Your task to perform on an android device: Go to Wikipedia Image 0: 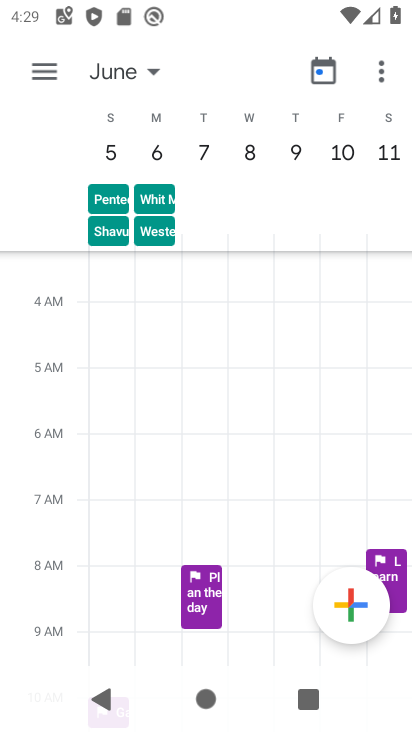
Step 0: press home button
Your task to perform on an android device: Go to Wikipedia Image 1: 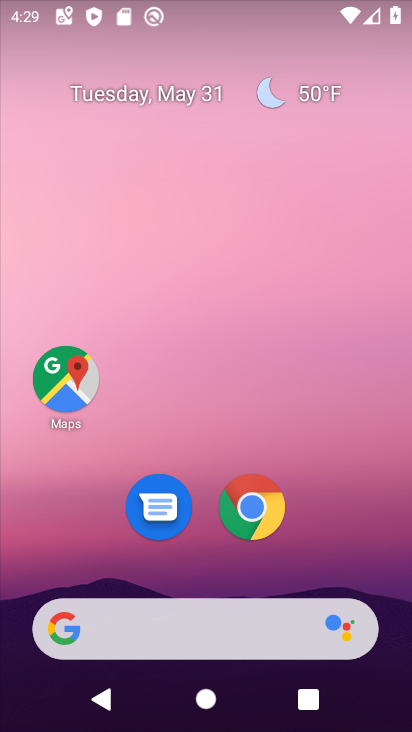
Step 1: click (245, 510)
Your task to perform on an android device: Go to Wikipedia Image 2: 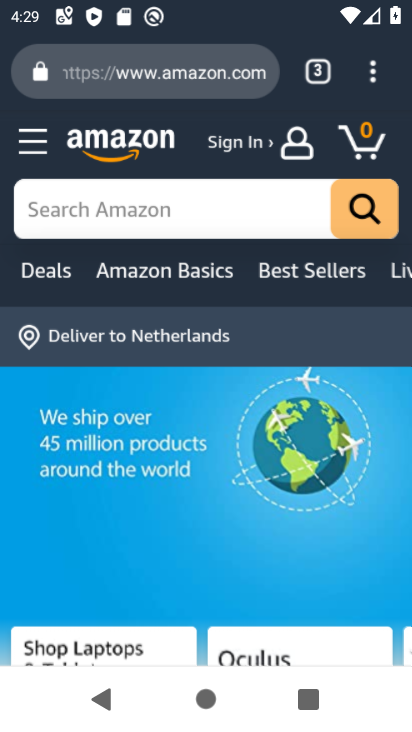
Step 2: click (288, 295)
Your task to perform on an android device: Go to Wikipedia Image 3: 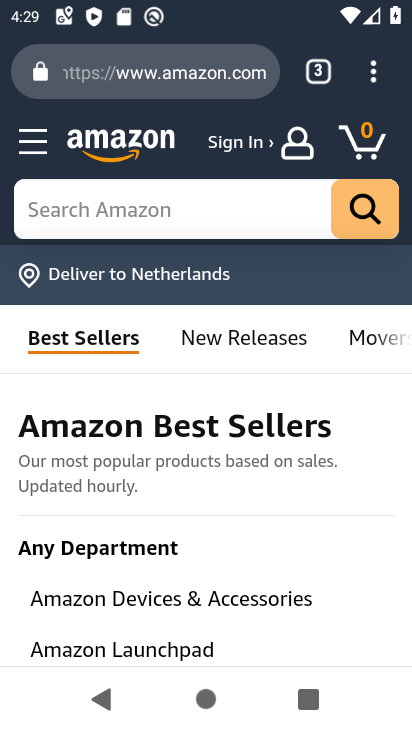
Step 3: click (373, 74)
Your task to perform on an android device: Go to Wikipedia Image 4: 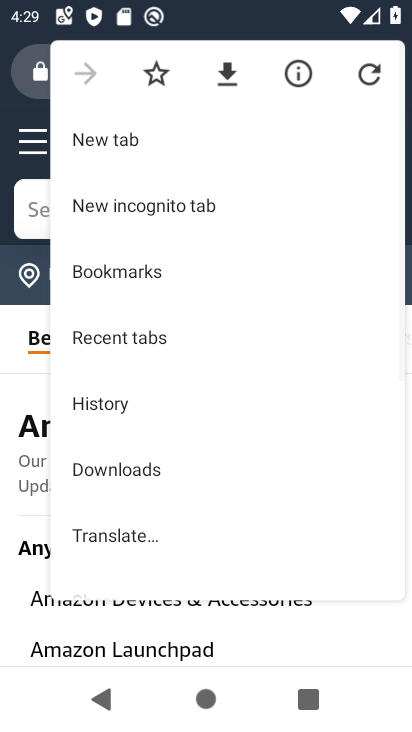
Step 4: click (176, 139)
Your task to perform on an android device: Go to Wikipedia Image 5: 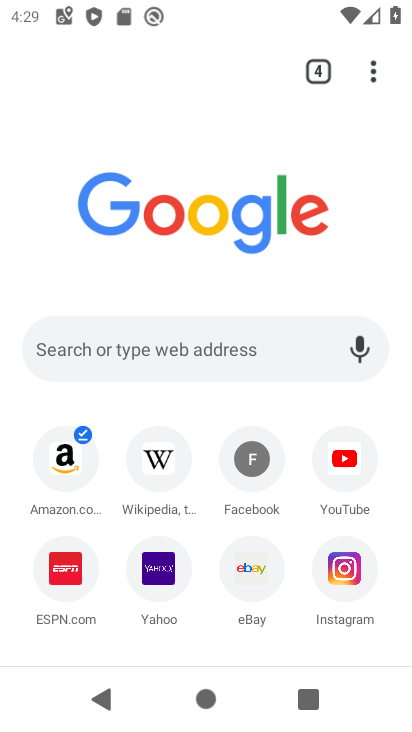
Step 5: click (166, 460)
Your task to perform on an android device: Go to Wikipedia Image 6: 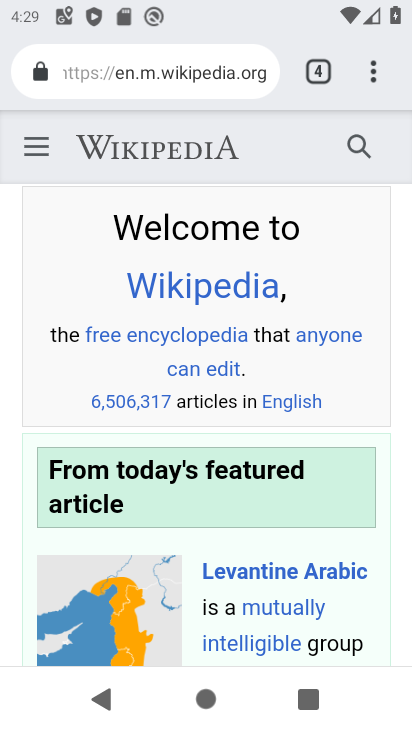
Step 6: task complete